Your task to perform on an android device: clear all cookies in the chrome app Image 0: 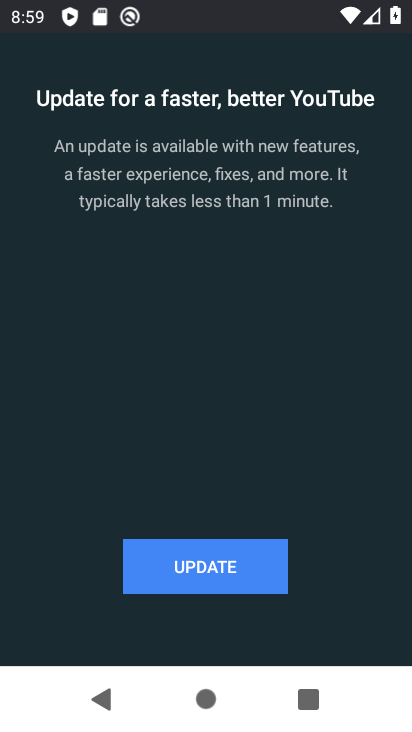
Step 0: press back button
Your task to perform on an android device: clear all cookies in the chrome app Image 1: 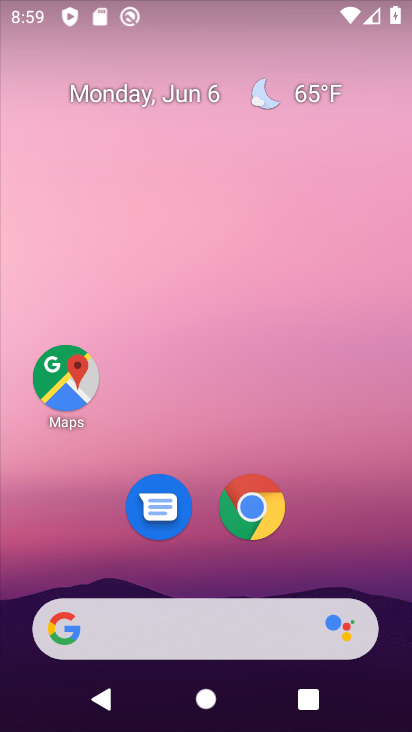
Step 1: click (245, 498)
Your task to perform on an android device: clear all cookies in the chrome app Image 2: 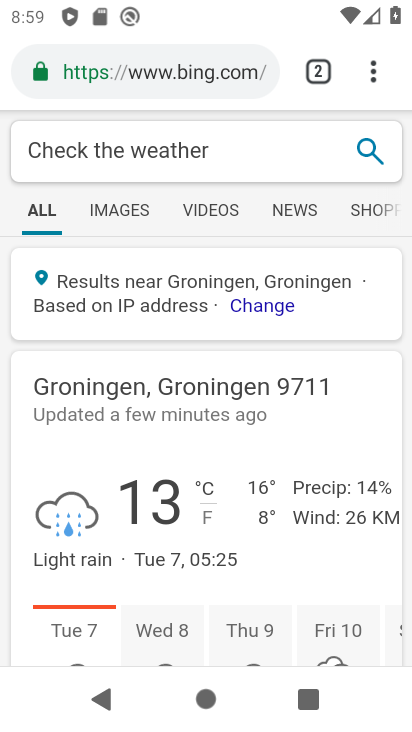
Step 2: click (369, 68)
Your task to perform on an android device: clear all cookies in the chrome app Image 3: 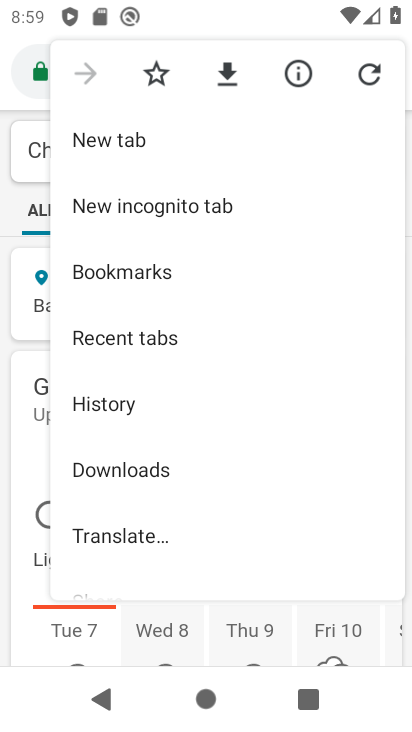
Step 3: drag from (195, 506) to (279, 252)
Your task to perform on an android device: clear all cookies in the chrome app Image 4: 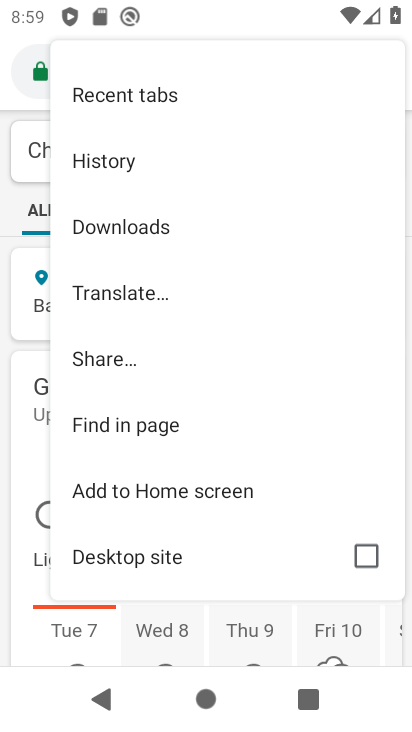
Step 4: drag from (186, 509) to (232, 231)
Your task to perform on an android device: clear all cookies in the chrome app Image 5: 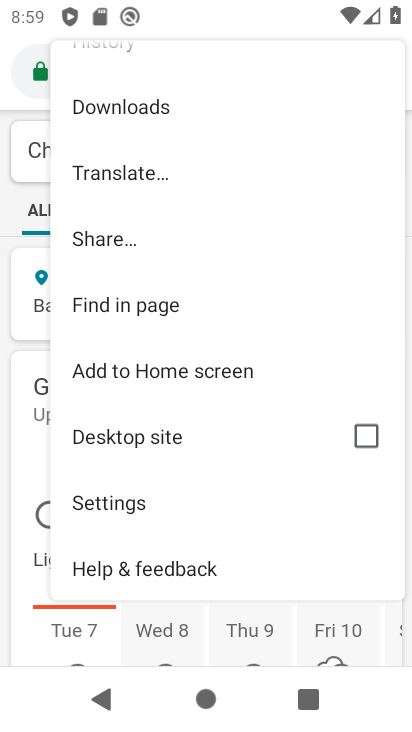
Step 5: click (111, 507)
Your task to perform on an android device: clear all cookies in the chrome app Image 6: 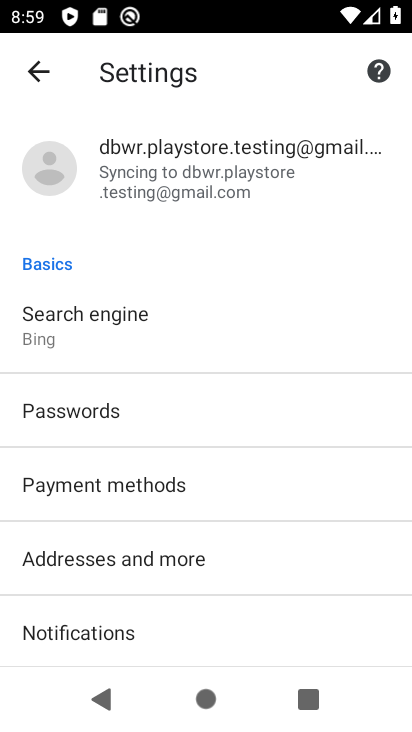
Step 6: drag from (149, 595) to (247, 338)
Your task to perform on an android device: clear all cookies in the chrome app Image 7: 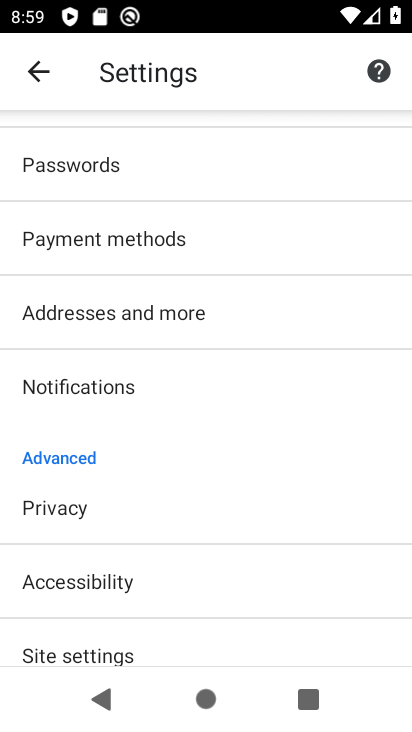
Step 7: click (125, 522)
Your task to perform on an android device: clear all cookies in the chrome app Image 8: 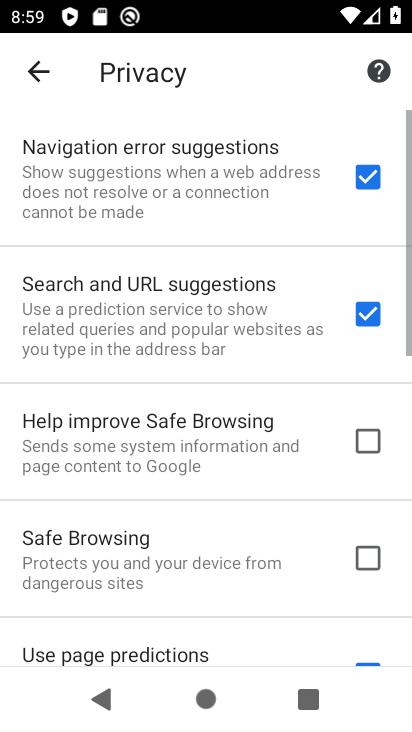
Step 8: drag from (185, 588) to (253, 217)
Your task to perform on an android device: clear all cookies in the chrome app Image 9: 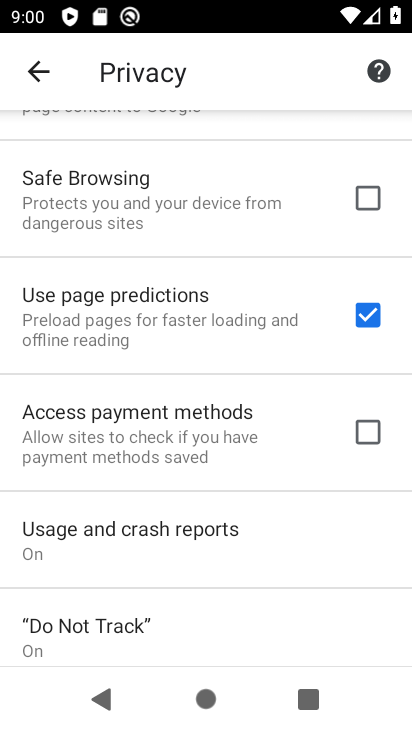
Step 9: drag from (228, 595) to (267, 238)
Your task to perform on an android device: clear all cookies in the chrome app Image 10: 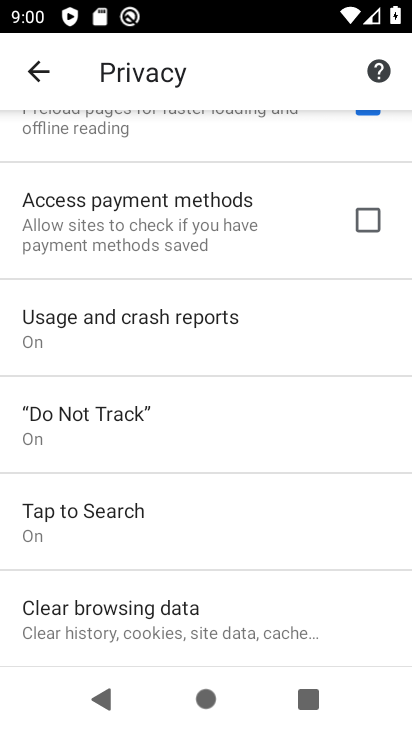
Step 10: click (147, 616)
Your task to perform on an android device: clear all cookies in the chrome app Image 11: 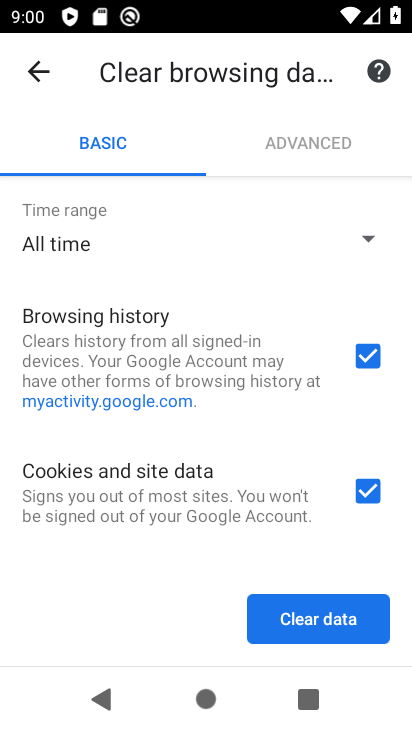
Step 11: click (319, 615)
Your task to perform on an android device: clear all cookies in the chrome app Image 12: 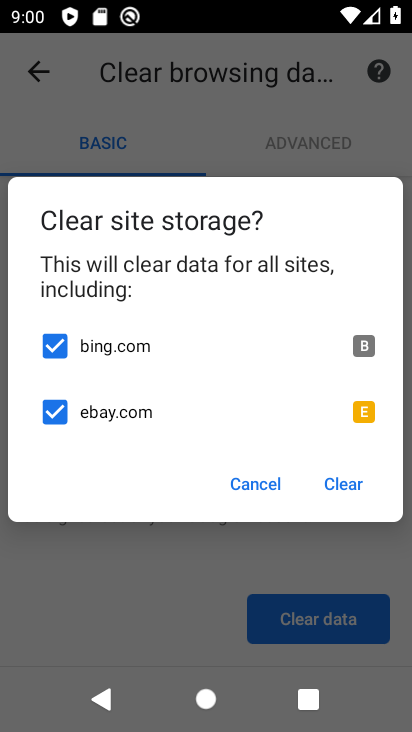
Step 12: click (333, 491)
Your task to perform on an android device: clear all cookies in the chrome app Image 13: 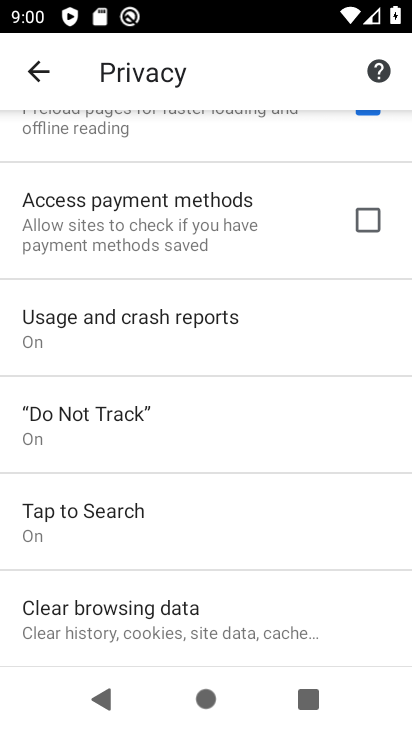
Step 13: task complete